Your task to perform on an android device: visit the assistant section in the google photos Image 0: 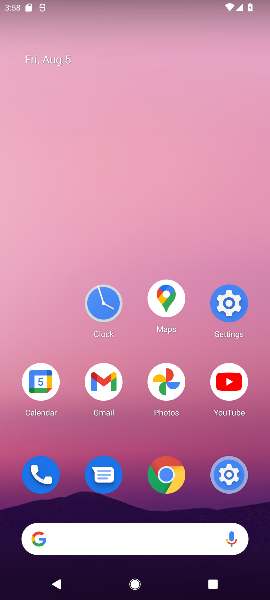
Step 0: click (158, 377)
Your task to perform on an android device: visit the assistant section in the google photos Image 1: 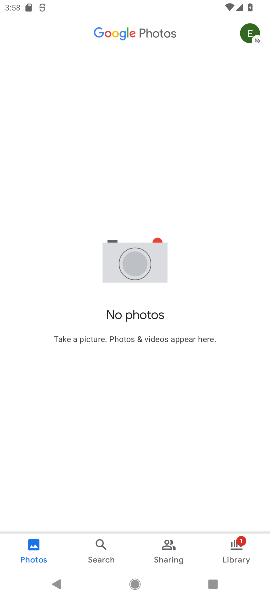
Step 1: task complete